Your task to perform on an android device: Open Yahoo.com Image 0: 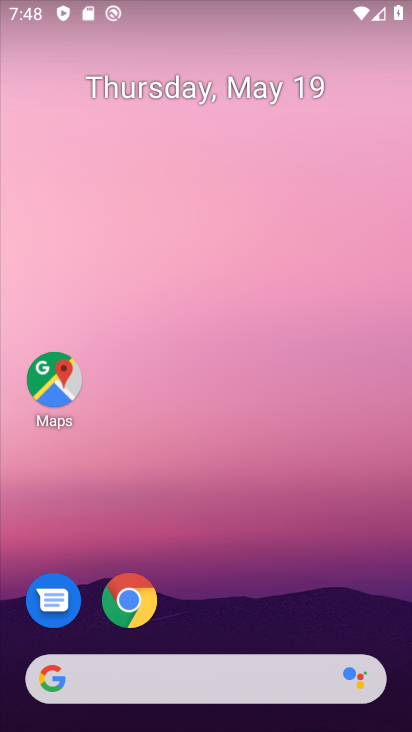
Step 0: click (138, 613)
Your task to perform on an android device: Open Yahoo.com Image 1: 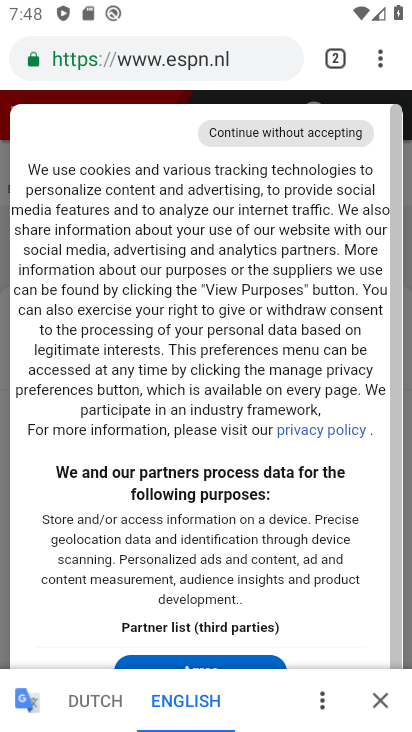
Step 1: click (108, 64)
Your task to perform on an android device: Open Yahoo.com Image 2: 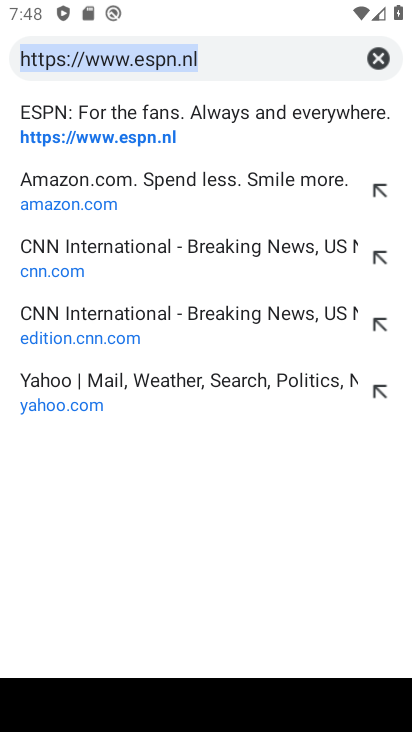
Step 2: click (51, 395)
Your task to perform on an android device: Open Yahoo.com Image 3: 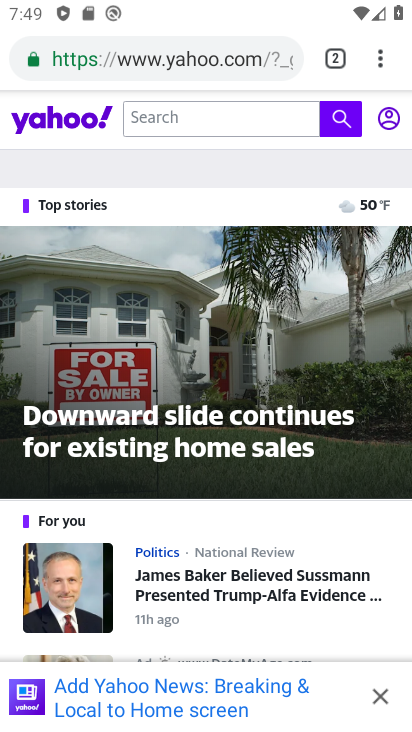
Step 3: task complete